Your task to perform on an android device: What's the weather going to be this weekend? Image 0: 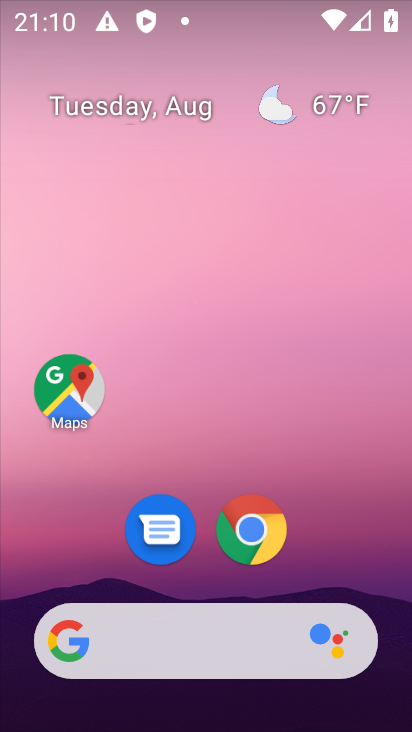
Step 0: drag from (195, 561) to (218, 84)
Your task to perform on an android device: What's the weather going to be this weekend? Image 1: 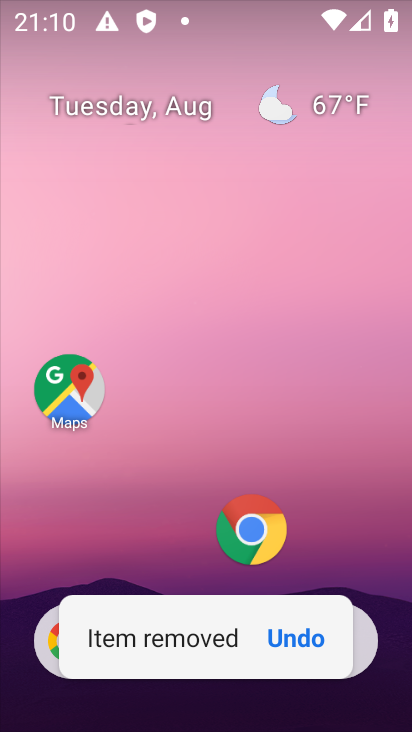
Step 1: drag from (172, 564) to (236, 168)
Your task to perform on an android device: What's the weather going to be this weekend? Image 2: 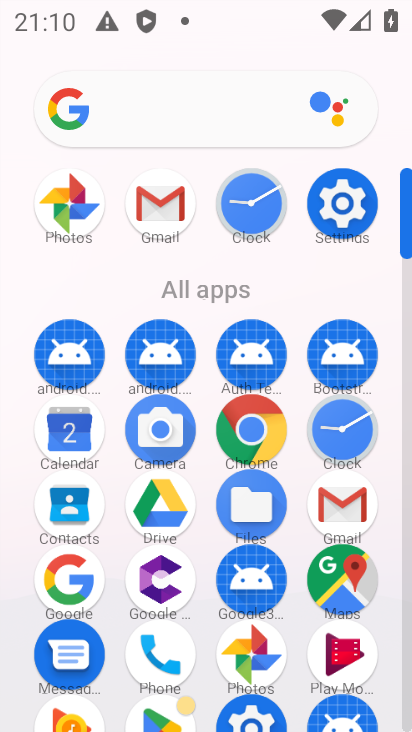
Step 2: click (177, 118)
Your task to perform on an android device: What's the weather going to be this weekend? Image 3: 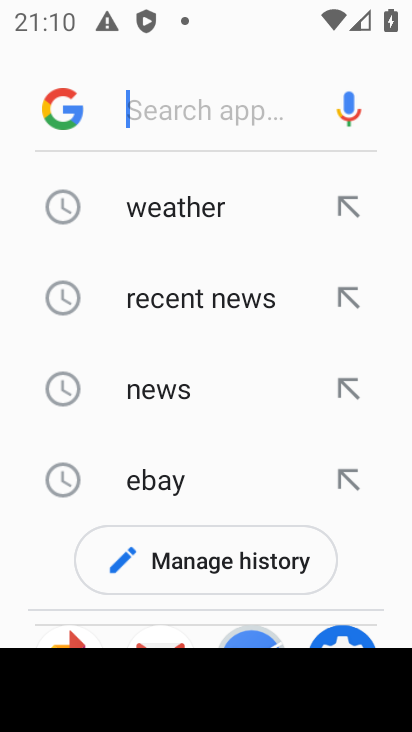
Step 3: type "What's the weather going to be this weekend?"
Your task to perform on an android device: What's the weather going to be this weekend? Image 4: 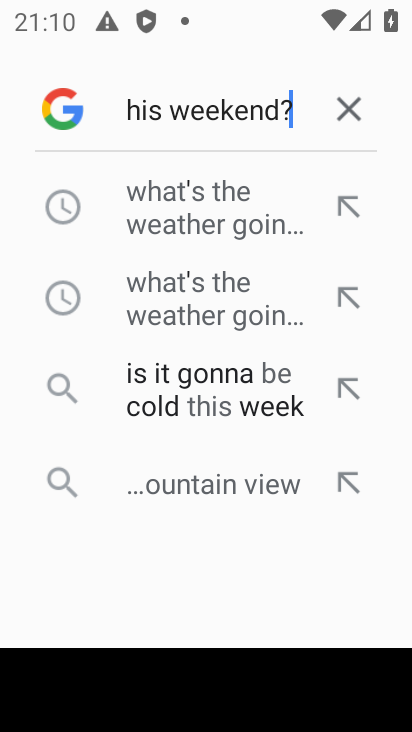
Step 4: type ""
Your task to perform on an android device: What's the weather going to be this weekend? Image 5: 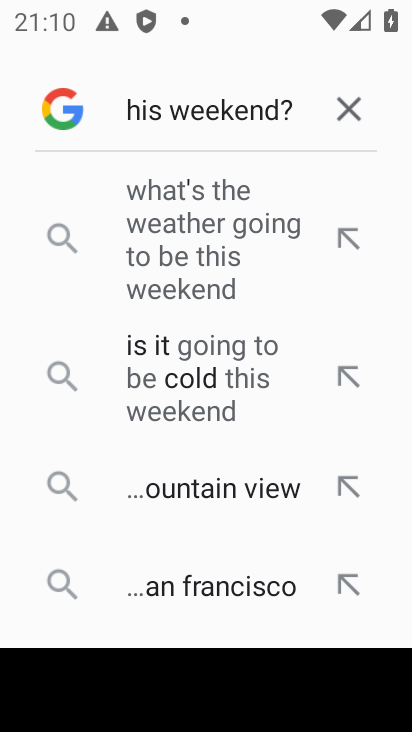
Step 5: click (186, 253)
Your task to perform on an android device: What's the weather going to be this weekend? Image 6: 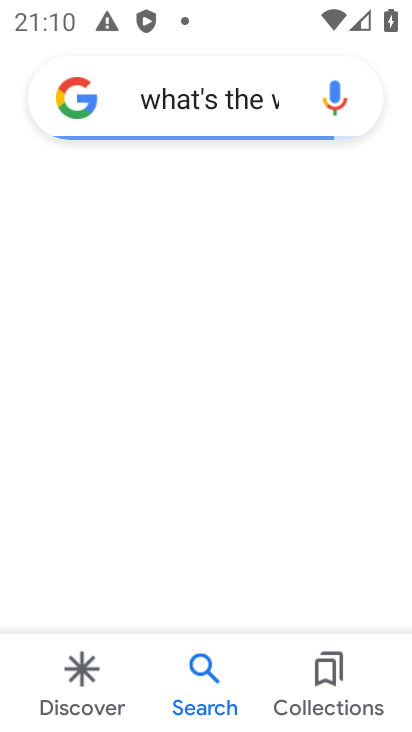
Step 6: task complete